Your task to perform on an android device: Go to internet settings Image 0: 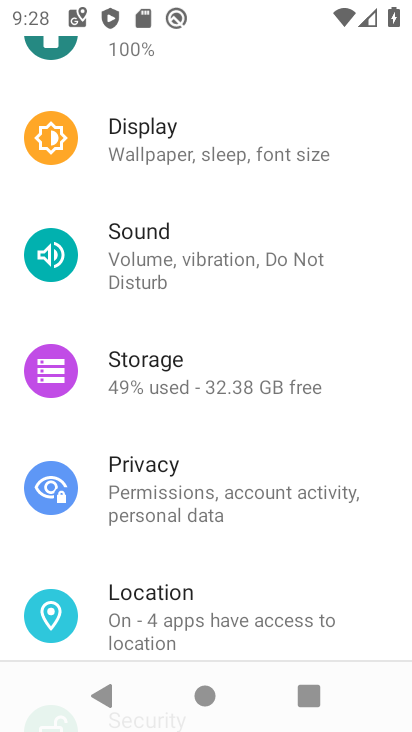
Step 0: press home button
Your task to perform on an android device: Go to internet settings Image 1: 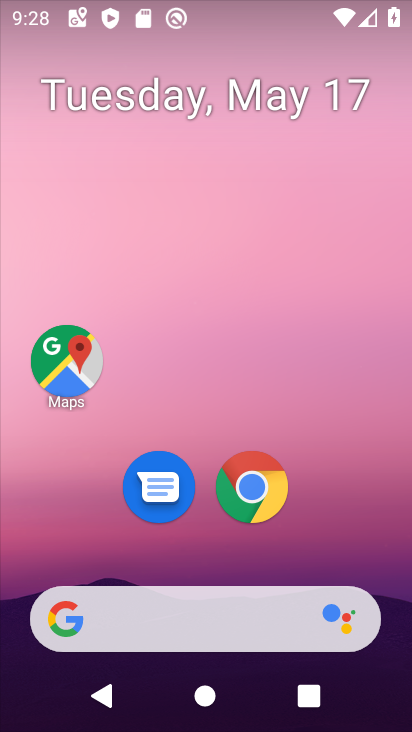
Step 1: drag from (276, 629) to (140, 148)
Your task to perform on an android device: Go to internet settings Image 2: 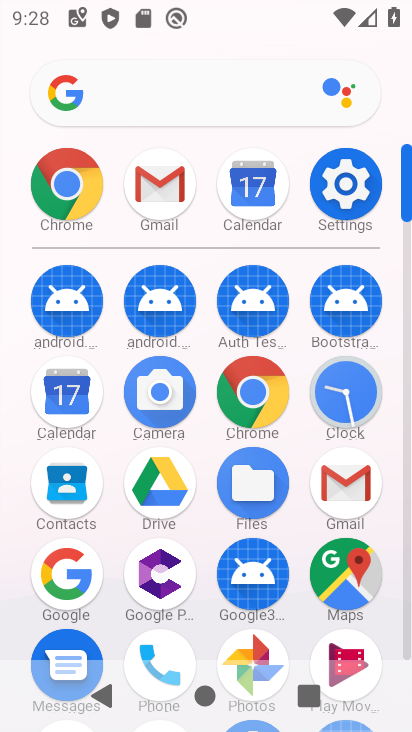
Step 2: click (321, 207)
Your task to perform on an android device: Go to internet settings Image 3: 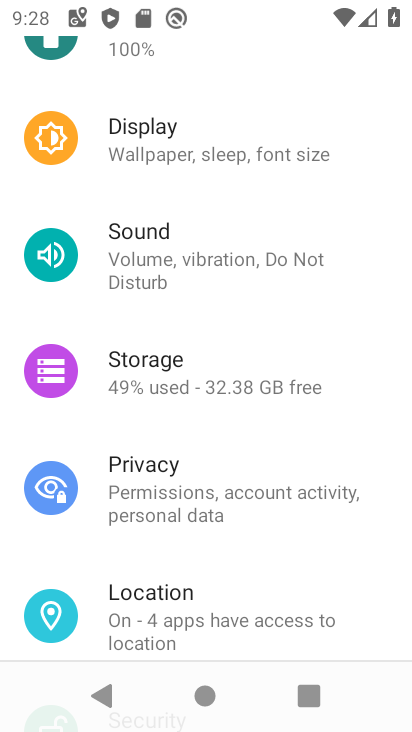
Step 3: drag from (271, 412) to (341, 563)
Your task to perform on an android device: Go to internet settings Image 4: 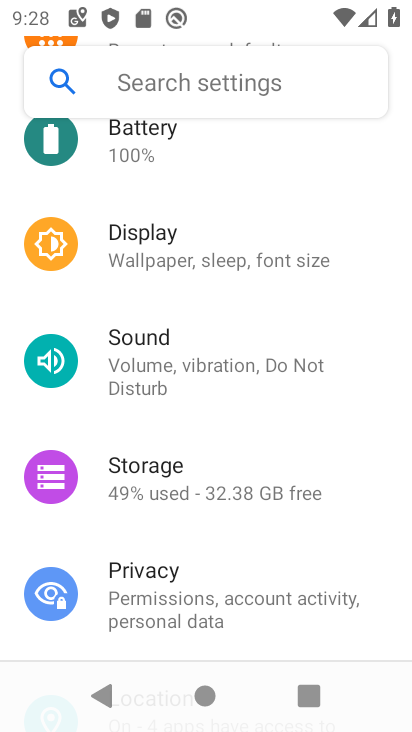
Step 4: drag from (127, 201) to (227, 446)
Your task to perform on an android device: Go to internet settings Image 5: 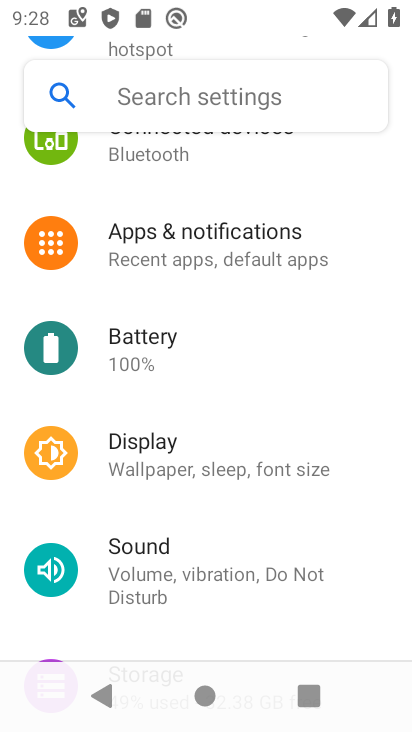
Step 5: drag from (155, 181) to (230, 429)
Your task to perform on an android device: Go to internet settings Image 6: 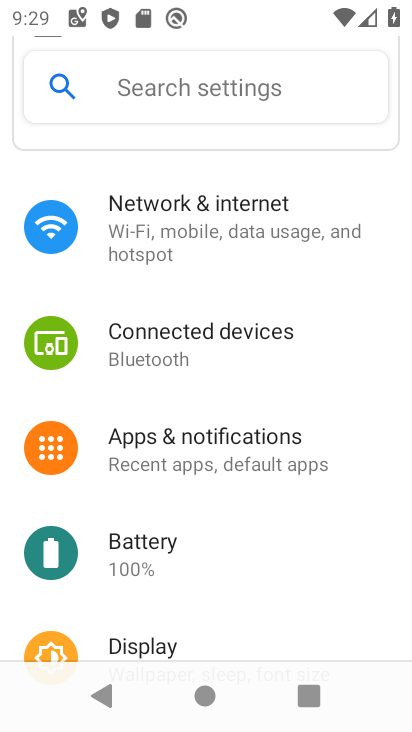
Step 6: click (156, 236)
Your task to perform on an android device: Go to internet settings Image 7: 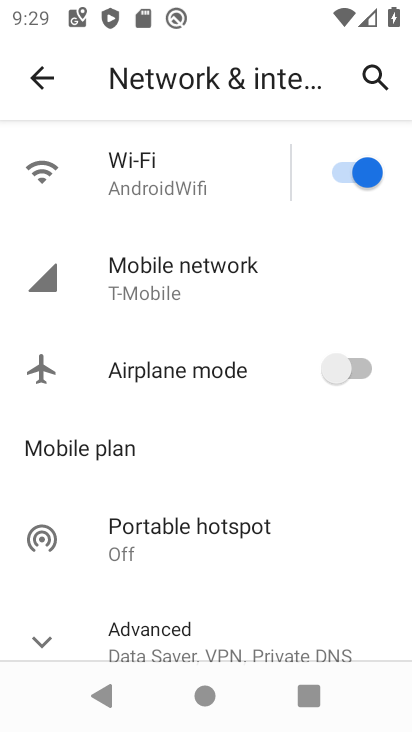
Step 7: task complete